Your task to perform on an android device: turn on showing notifications on the lock screen Image 0: 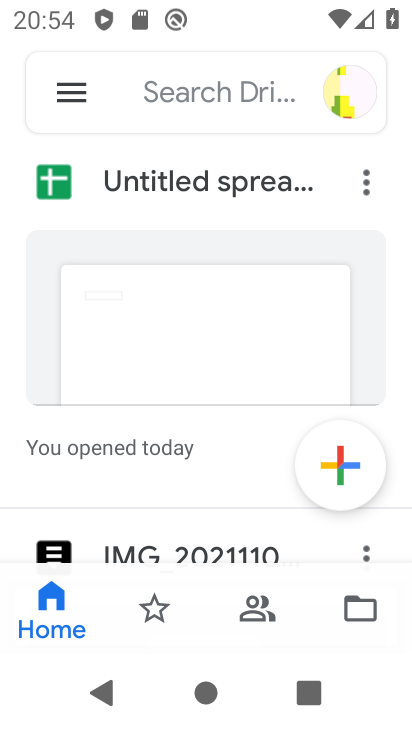
Step 0: press home button
Your task to perform on an android device: turn on showing notifications on the lock screen Image 1: 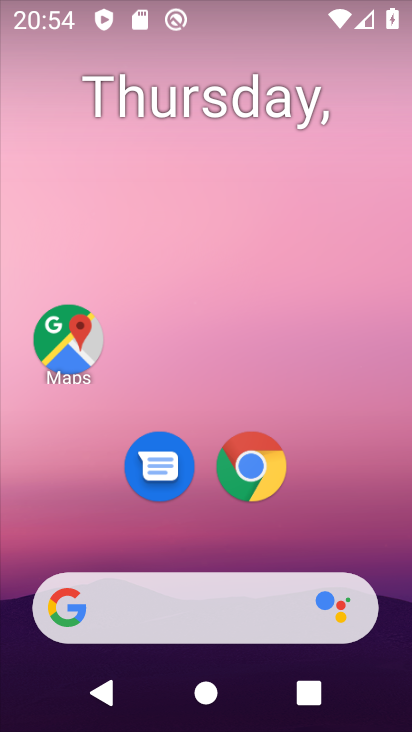
Step 1: drag from (202, 546) to (410, 113)
Your task to perform on an android device: turn on showing notifications on the lock screen Image 2: 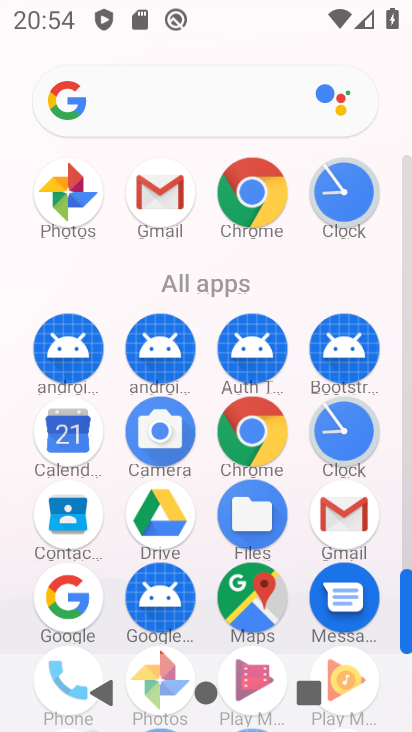
Step 2: drag from (205, 566) to (180, 8)
Your task to perform on an android device: turn on showing notifications on the lock screen Image 3: 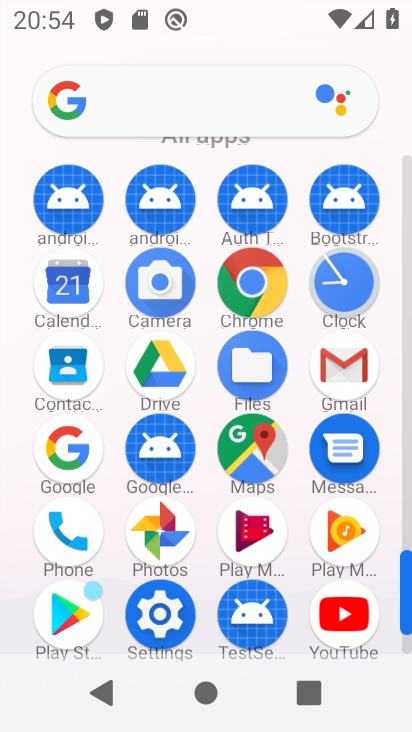
Step 3: click (172, 629)
Your task to perform on an android device: turn on showing notifications on the lock screen Image 4: 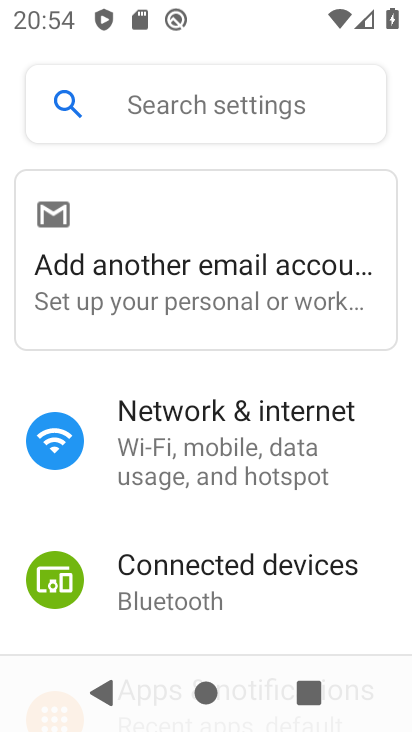
Step 4: drag from (183, 563) to (135, 93)
Your task to perform on an android device: turn on showing notifications on the lock screen Image 5: 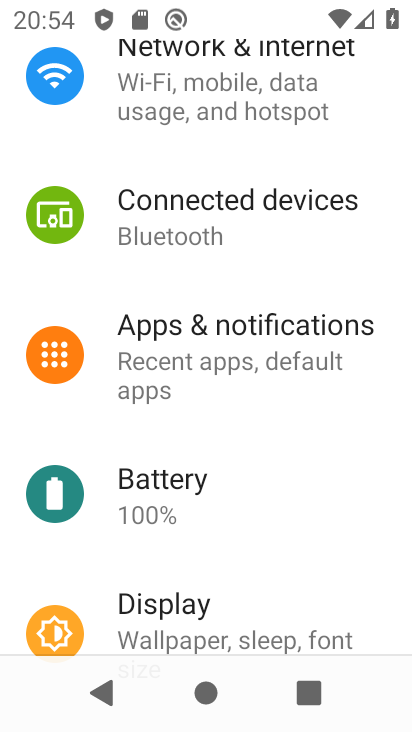
Step 5: click (186, 361)
Your task to perform on an android device: turn on showing notifications on the lock screen Image 6: 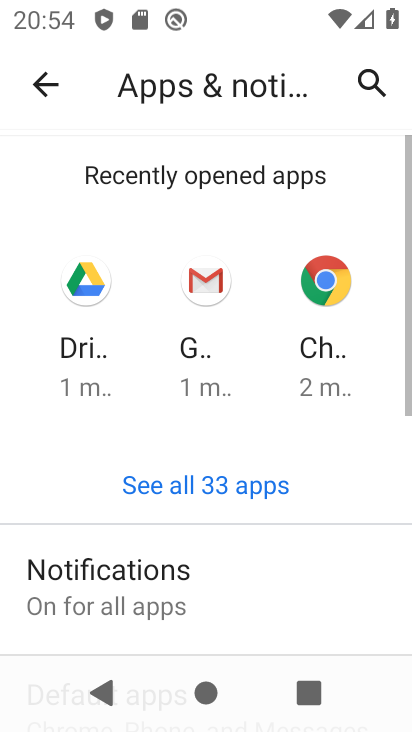
Step 6: click (195, 577)
Your task to perform on an android device: turn on showing notifications on the lock screen Image 7: 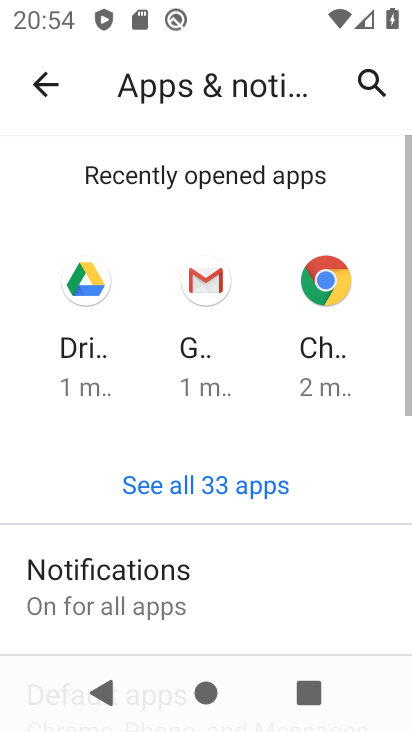
Step 7: drag from (181, 424) to (173, 28)
Your task to perform on an android device: turn on showing notifications on the lock screen Image 8: 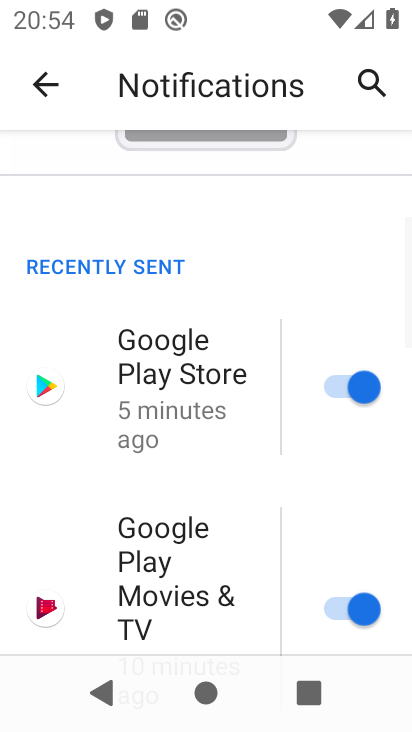
Step 8: drag from (167, 636) to (95, 35)
Your task to perform on an android device: turn on showing notifications on the lock screen Image 9: 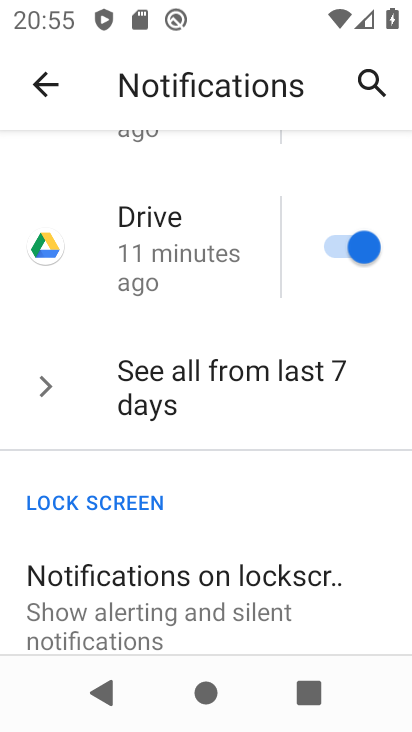
Step 9: click (179, 579)
Your task to perform on an android device: turn on showing notifications on the lock screen Image 10: 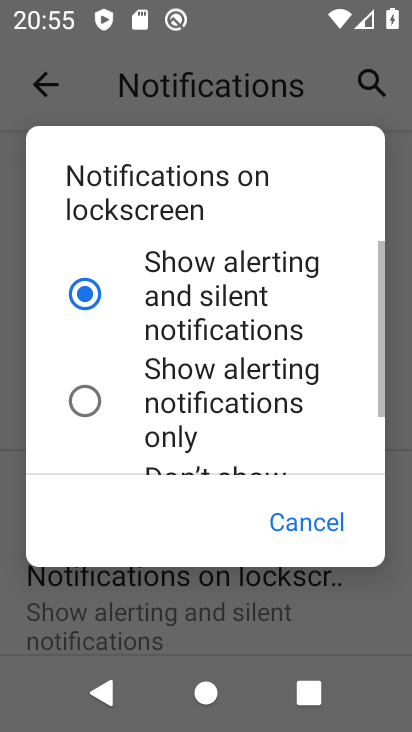
Step 10: click (152, 276)
Your task to perform on an android device: turn on showing notifications on the lock screen Image 11: 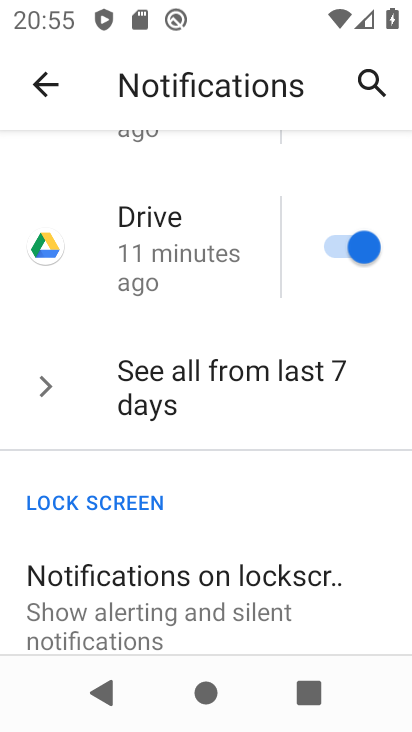
Step 11: task complete